Your task to perform on an android device: delete the emails in spam in the gmail app Image 0: 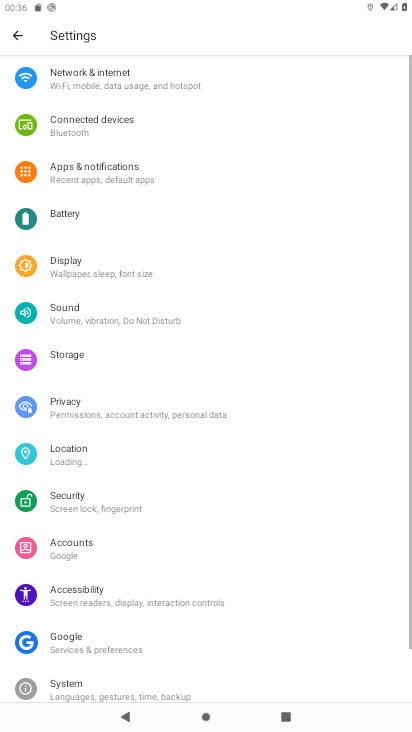
Step 0: drag from (333, 612) to (411, 407)
Your task to perform on an android device: delete the emails in spam in the gmail app Image 1: 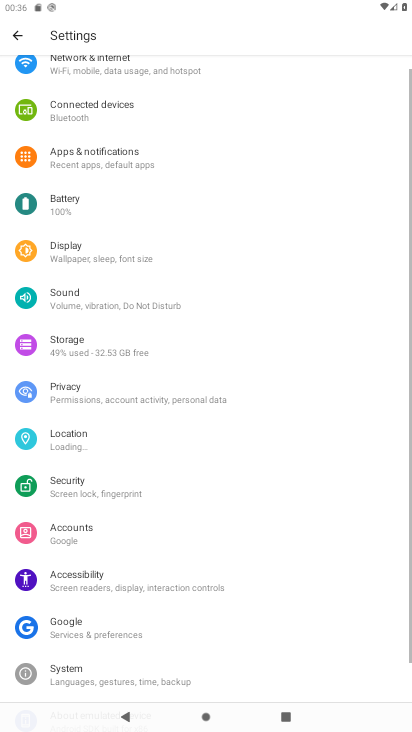
Step 1: press home button
Your task to perform on an android device: delete the emails in spam in the gmail app Image 2: 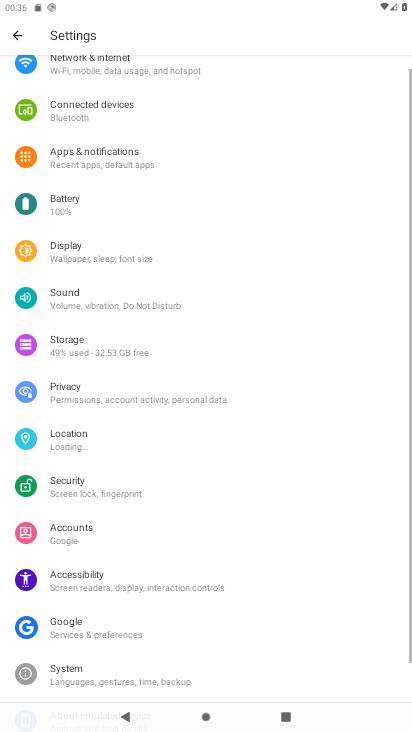
Step 2: click (408, 326)
Your task to perform on an android device: delete the emails in spam in the gmail app Image 3: 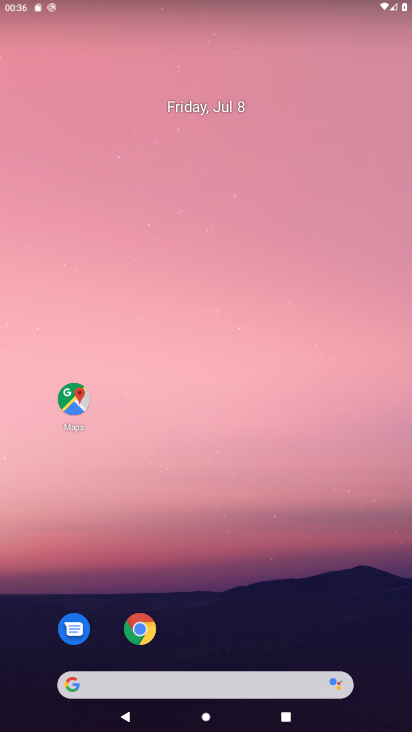
Step 3: drag from (288, 607) to (255, 17)
Your task to perform on an android device: delete the emails in spam in the gmail app Image 4: 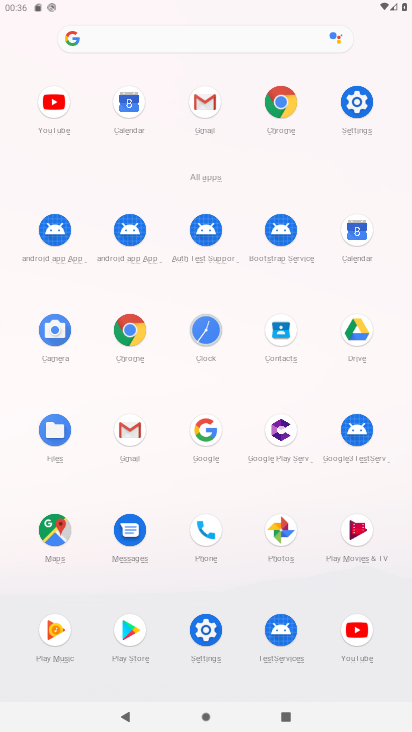
Step 4: click (135, 436)
Your task to perform on an android device: delete the emails in spam in the gmail app Image 5: 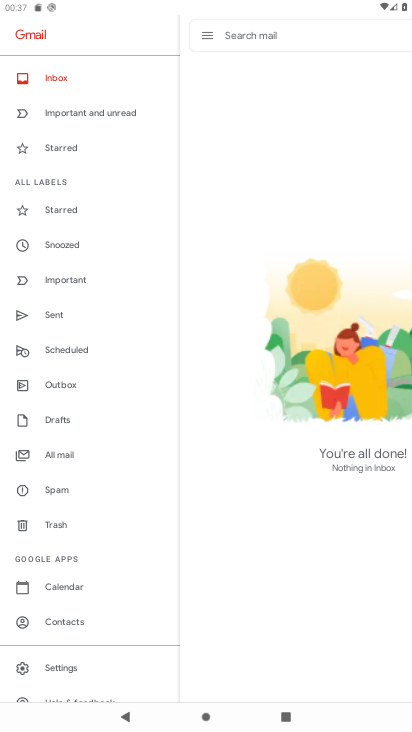
Step 5: click (63, 484)
Your task to perform on an android device: delete the emails in spam in the gmail app Image 6: 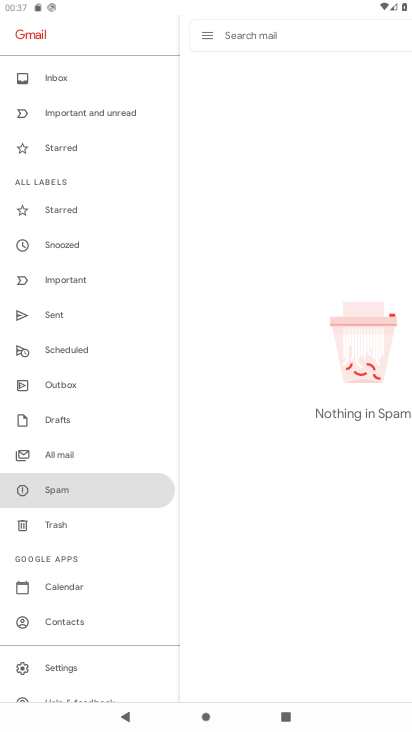
Step 6: task complete